Your task to perform on an android device: turn on the 24-hour format for clock Image 0: 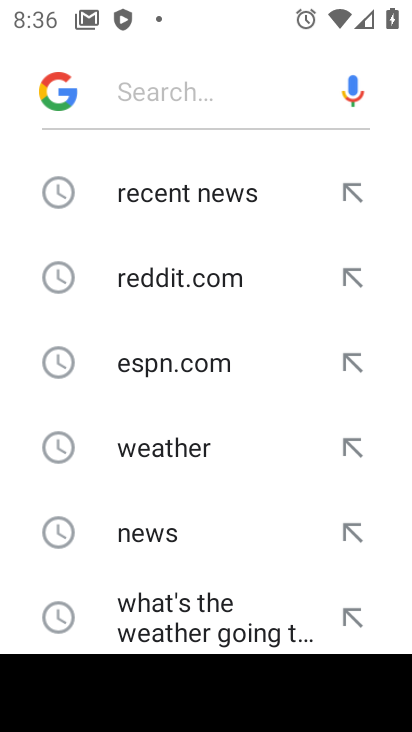
Step 0: press home button
Your task to perform on an android device: turn on the 24-hour format for clock Image 1: 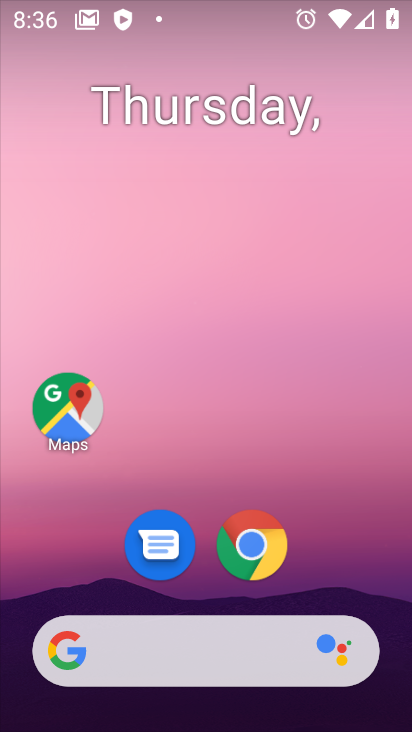
Step 1: drag from (207, 587) to (216, 164)
Your task to perform on an android device: turn on the 24-hour format for clock Image 2: 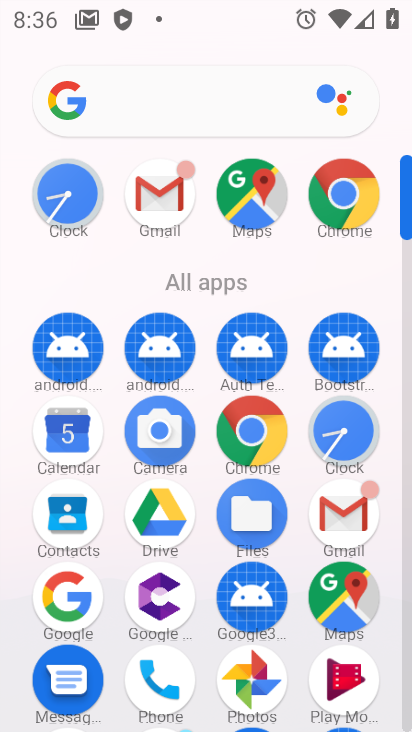
Step 2: click (367, 435)
Your task to perform on an android device: turn on the 24-hour format for clock Image 3: 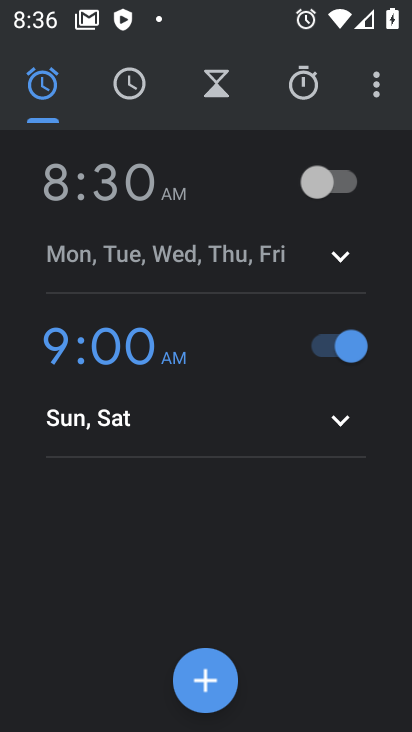
Step 3: click (360, 82)
Your task to perform on an android device: turn on the 24-hour format for clock Image 4: 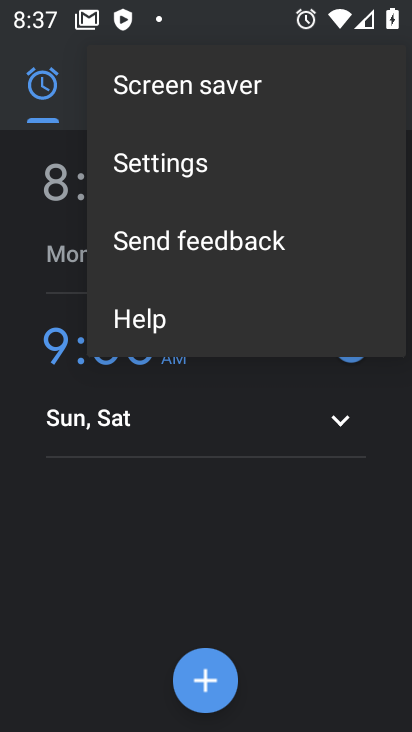
Step 4: click (206, 165)
Your task to perform on an android device: turn on the 24-hour format for clock Image 5: 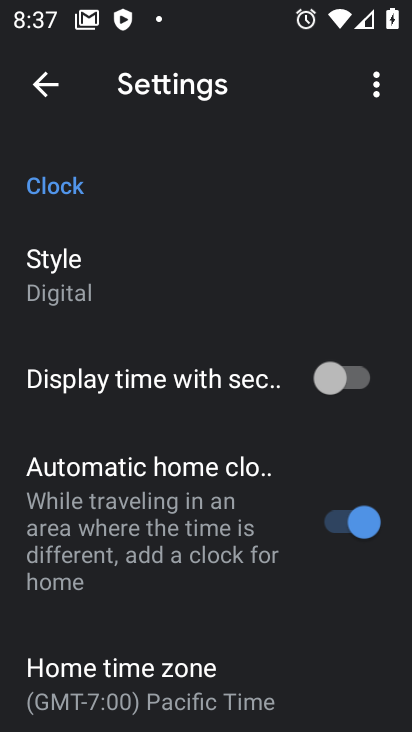
Step 5: drag from (135, 715) to (147, 187)
Your task to perform on an android device: turn on the 24-hour format for clock Image 6: 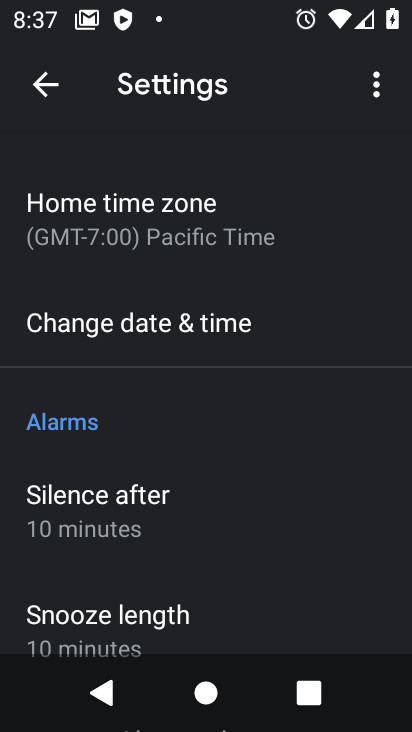
Step 6: drag from (47, 585) to (197, 220)
Your task to perform on an android device: turn on the 24-hour format for clock Image 7: 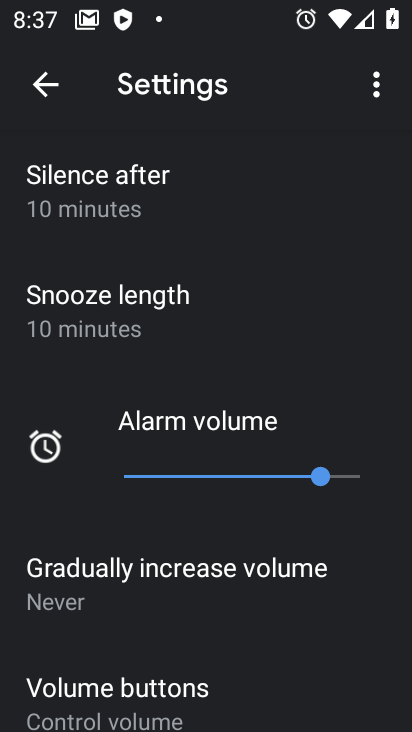
Step 7: drag from (144, 166) to (219, 636)
Your task to perform on an android device: turn on the 24-hour format for clock Image 8: 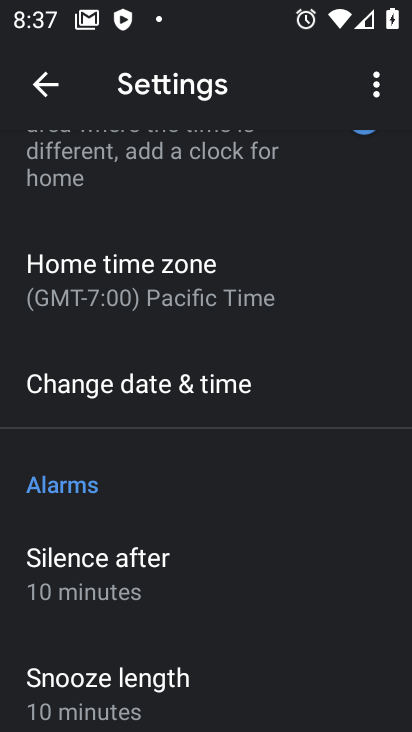
Step 8: click (141, 392)
Your task to perform on an android device: turn on the 24-hour format for clock Image 9: 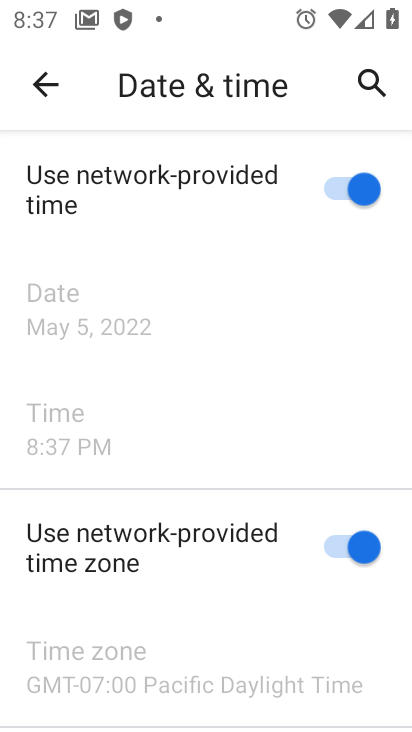
Step 9: drag from (78, 649) to (125, 208)
Your task to perform on an android device: turn on the 24-hour format for clock Image 10: 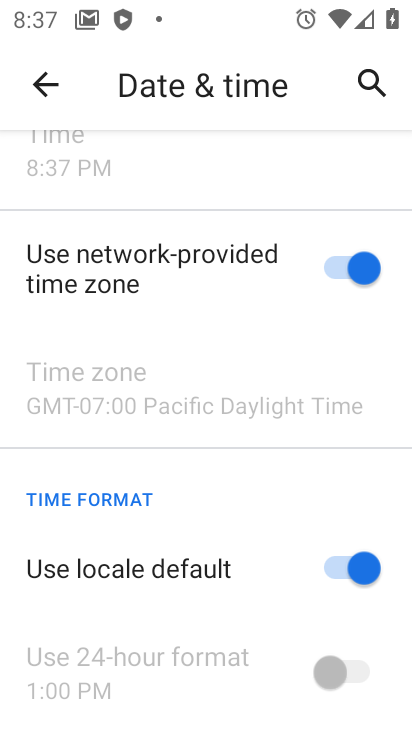
Step 10: click (340, 565)
Your task to perform on an android device: turn on the 24-hour format for clock Image 11: 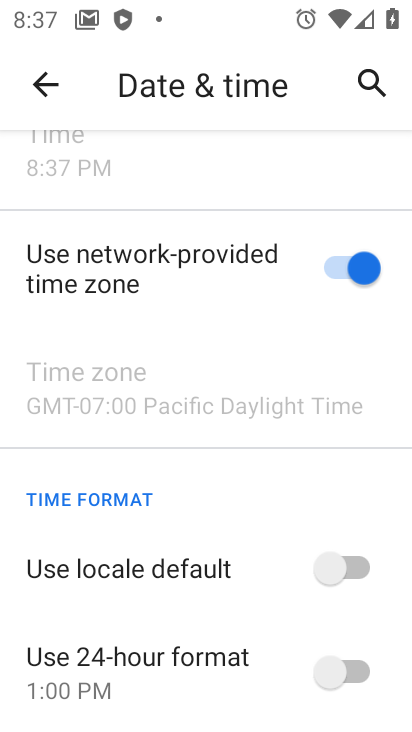
Step 11: click (348, 681)
Your task to perform on an android device: turn on the 24-hour format for clock Image 12: 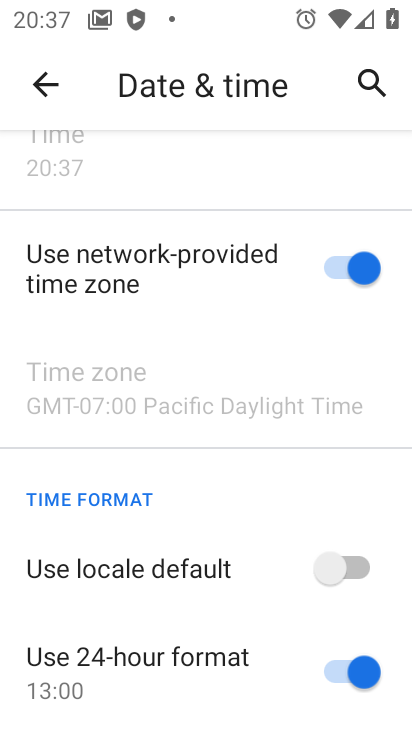
Step 12: task complete